Your task to perform on an android device: open app "YouTube Kids" (install if not already installed) Image 0: 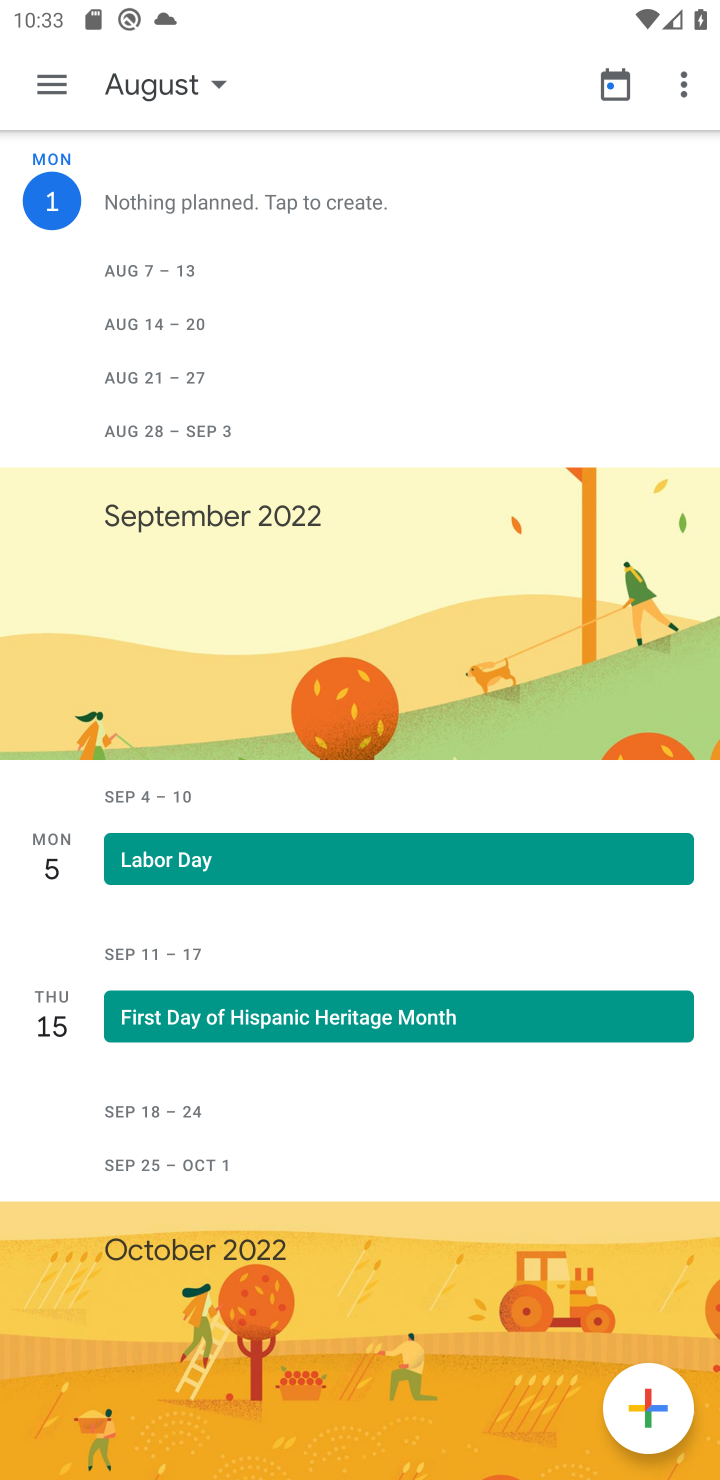
Step 0: press home button
Your task to perform on an android device: open app "YouTube Kids" (install if not already installed) Image 1: 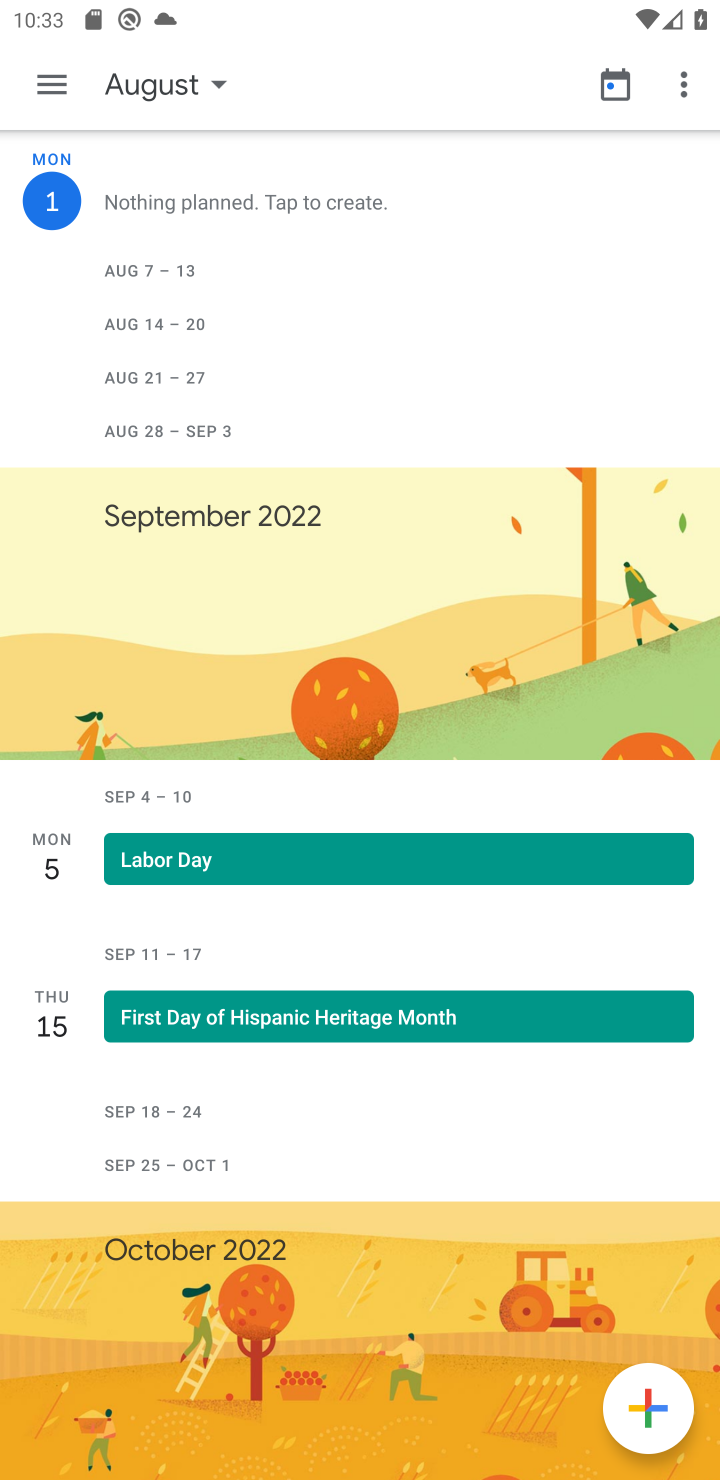
Step 1: press home button
Your task to perform on an android device: open app "YouTube Kids" (install if not already installed) Image 2: 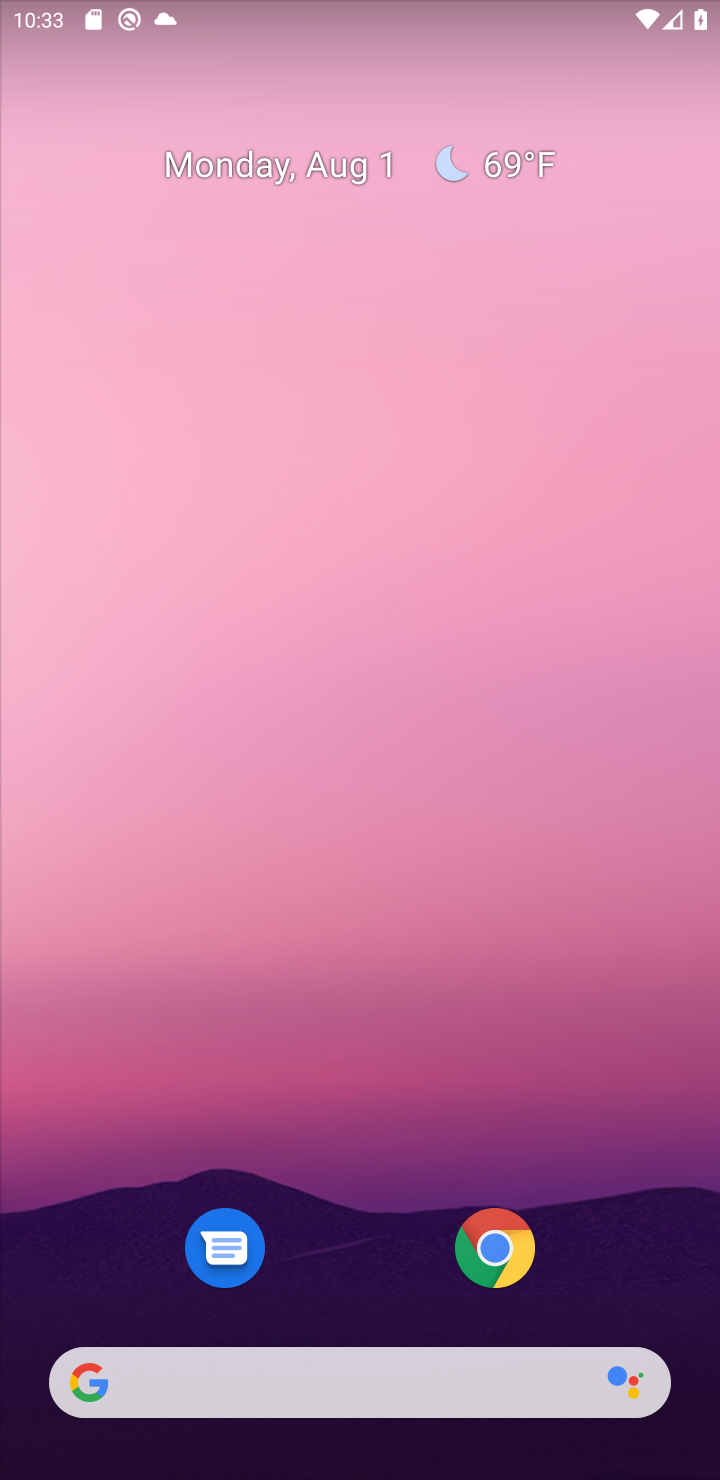
Step 2: press home button
Your task to perform on an android device: open app "YouTube Kids" (install if not already installed) Image 3: 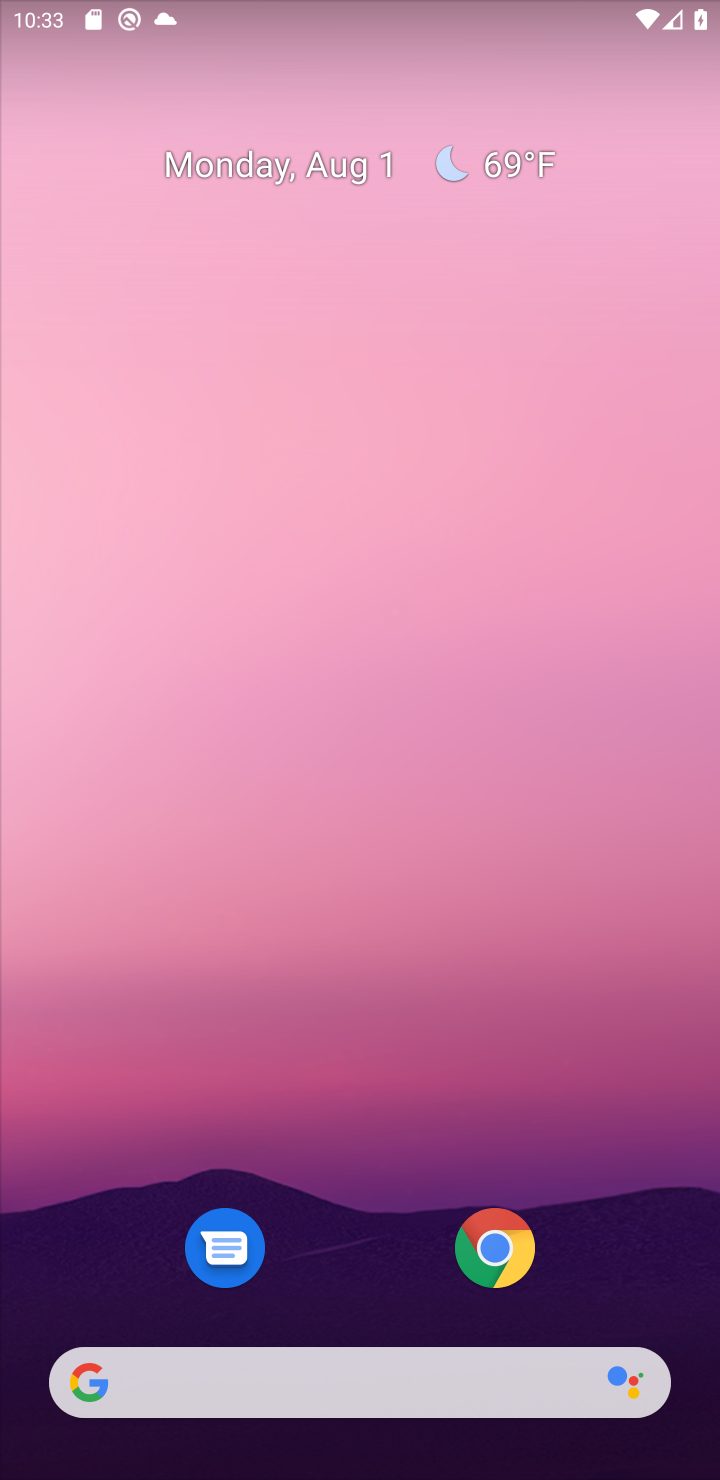
Step 3: drag from (360, 1076) to (334, 59)
Your task to perform on an android device: open app "YouTube Kids" (install if not already installed) Image 4: 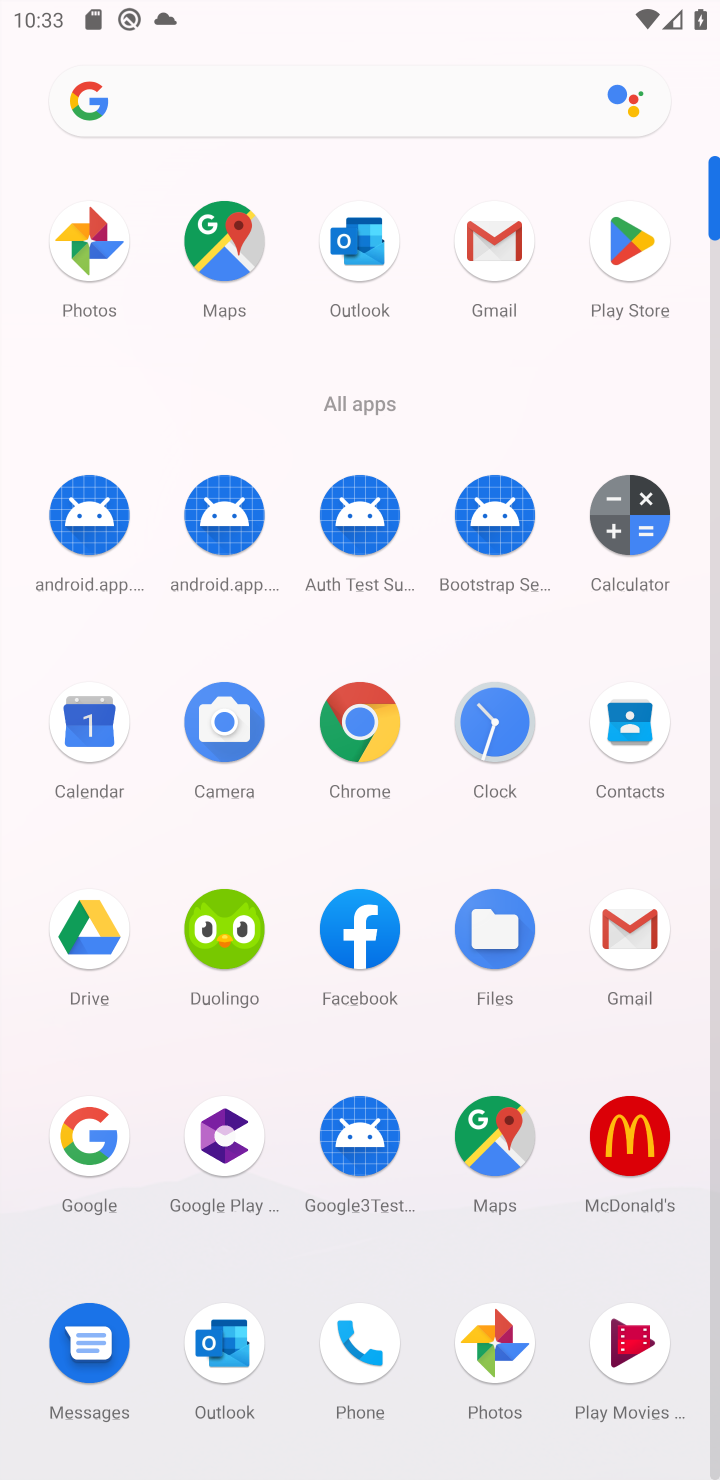
Step 4: drag from (425, 1285) to (426, 625)
Your task to perform on an android device: open app "YouTube Kids" (install if not already installed) Image 5: 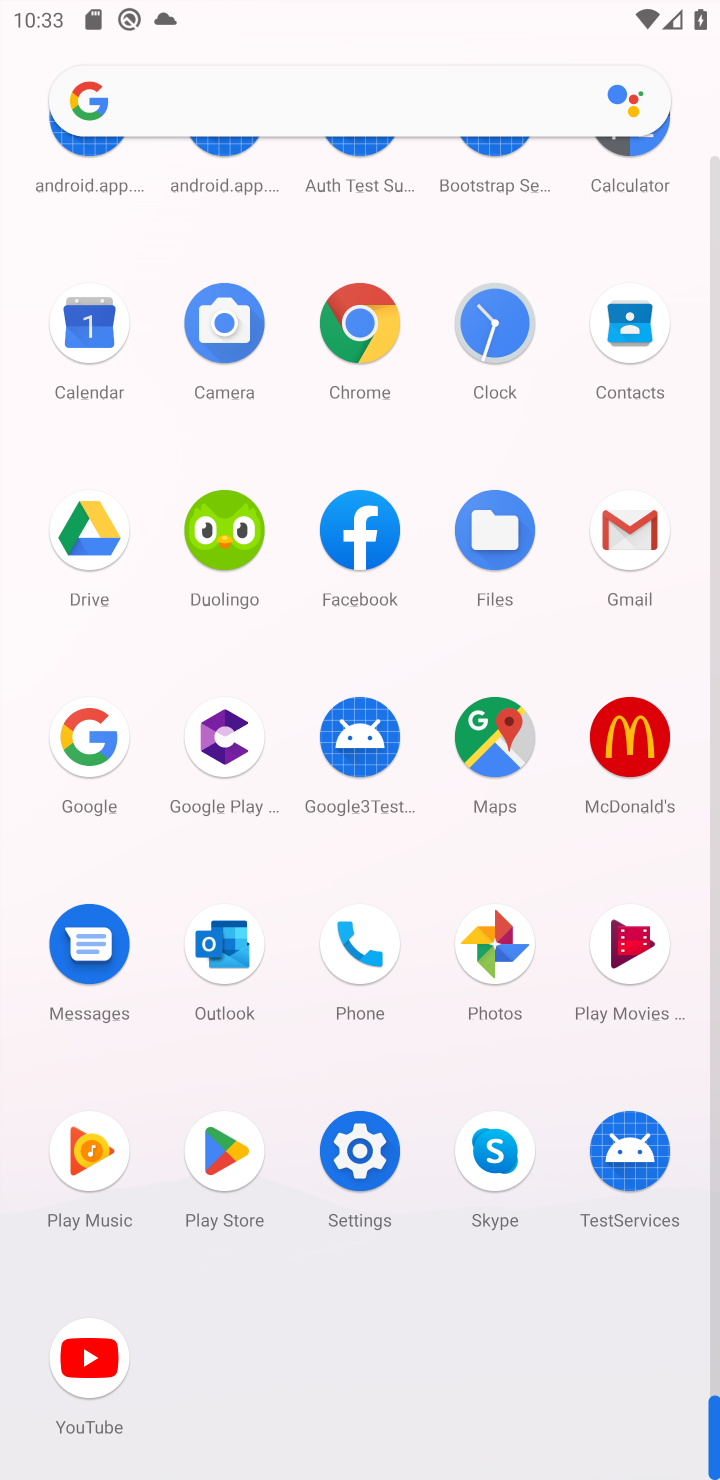
Step 5: click (223, 1157)
Your task to perform on an android device: open app "YouTube Kids" (install if not already installed) Image 6: 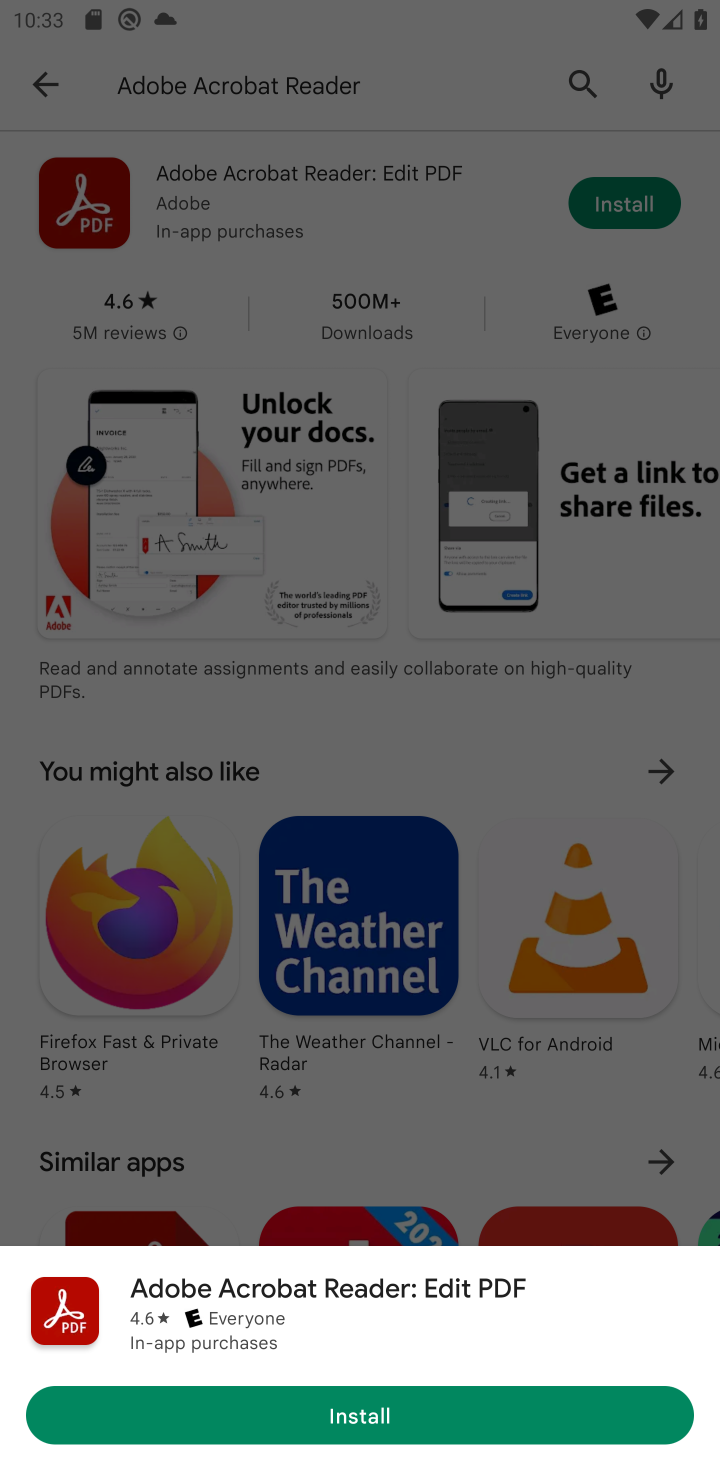
Step 6: click (392, 184)
Your task to perform on an android device: open app "YouTube Kids" (install if not already installed) Image 7: 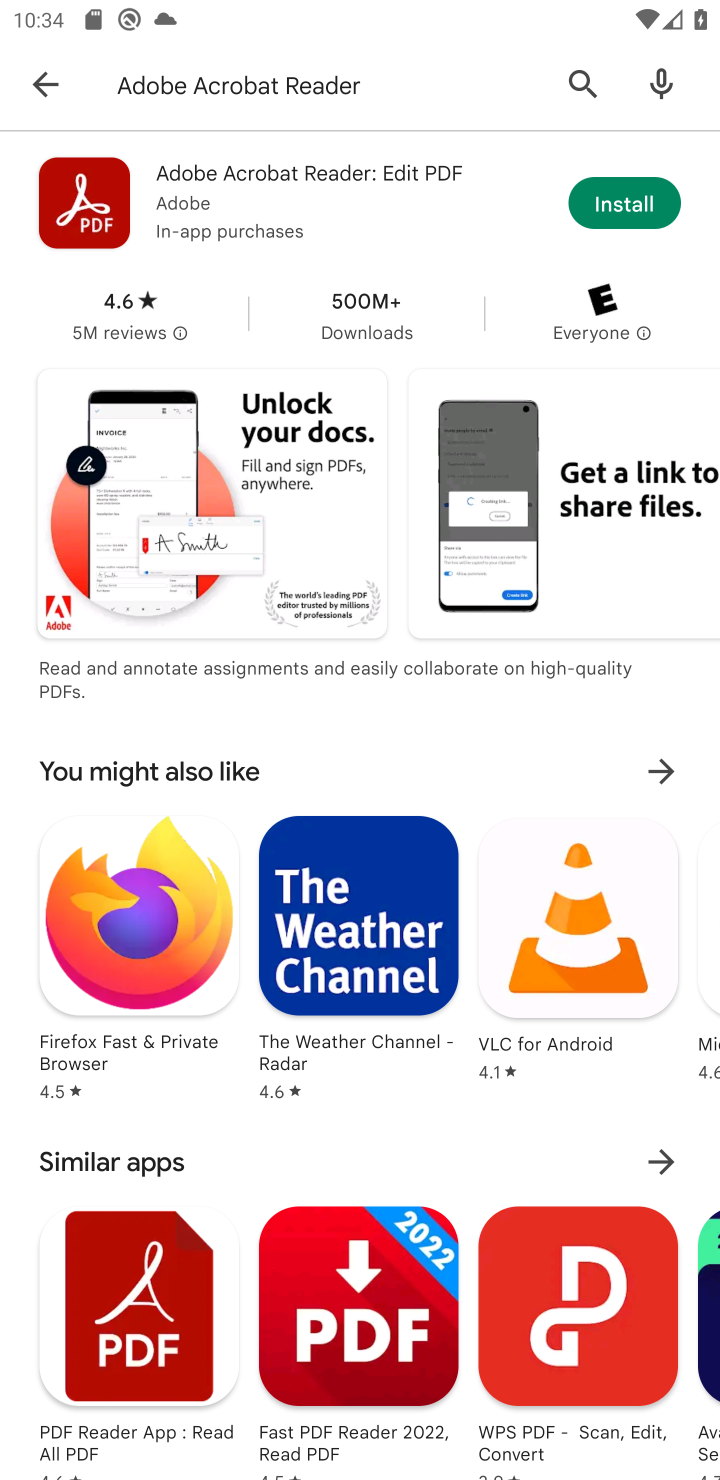
Step 7: click (396, 79)
Your task to perform on an android device: open app "YouTube Kids" (install if not already installed) Image 8: 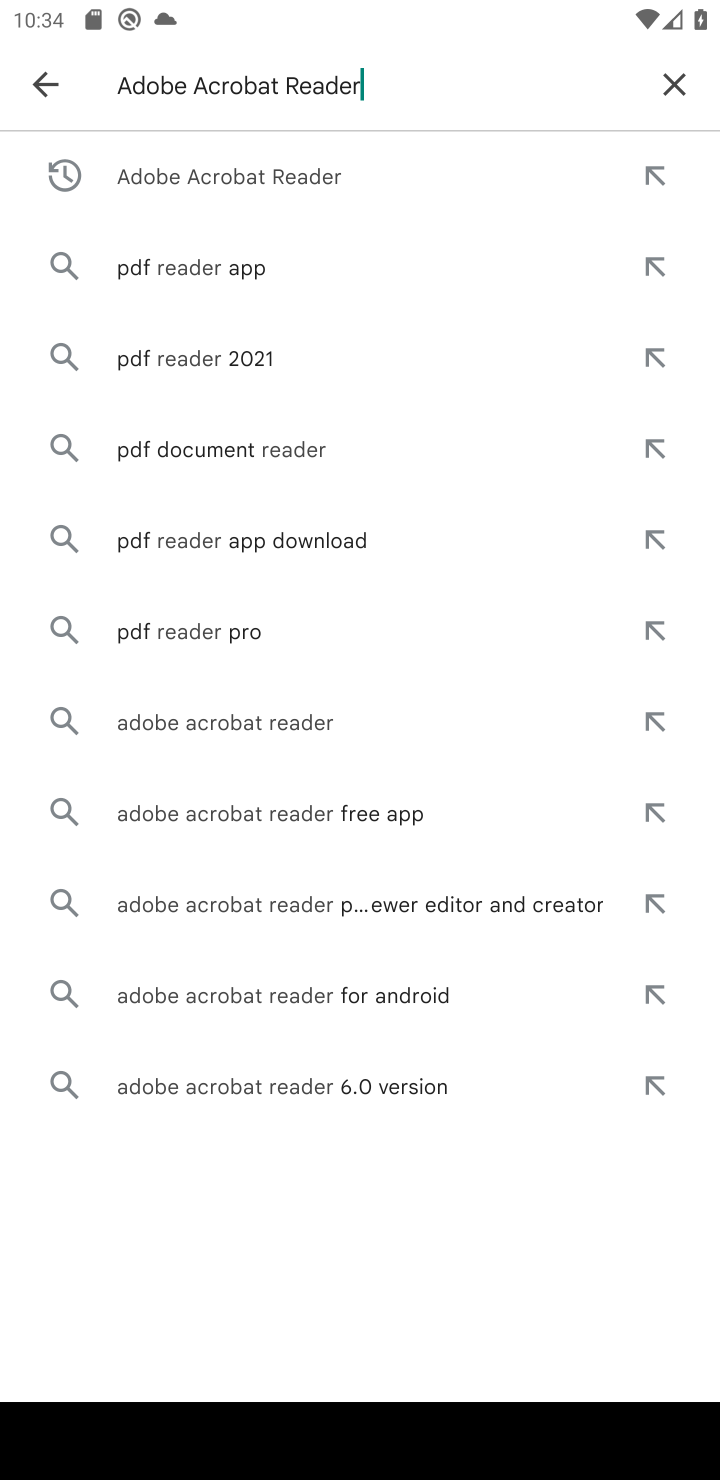
Step 8: click (689, 83)
Your task to perform on an android device: open app "YouTube Kids" (install if not already installed) Image 9: 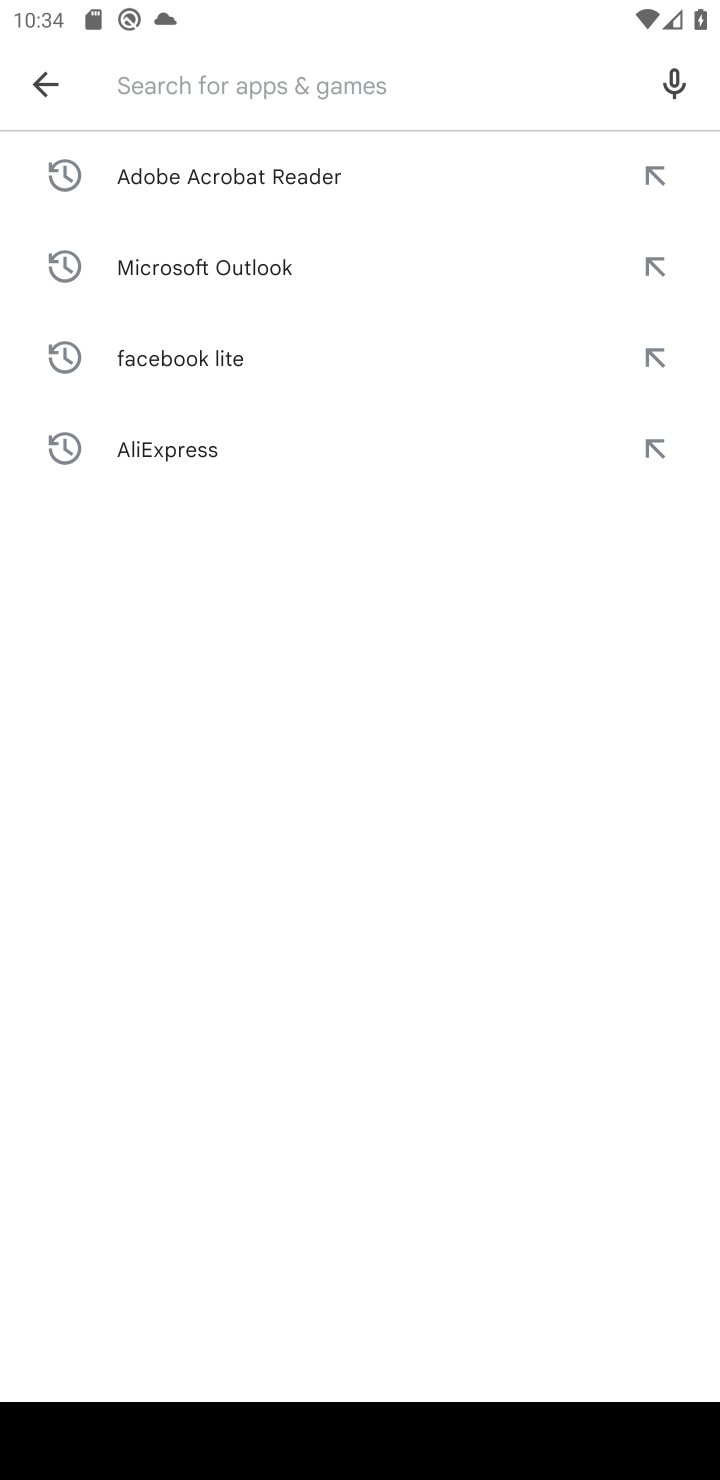
Step 9: type "Youtube Kids"
Your task to perform on an android device: open app "YouTube Kids" (install if not already installed) Image 10: 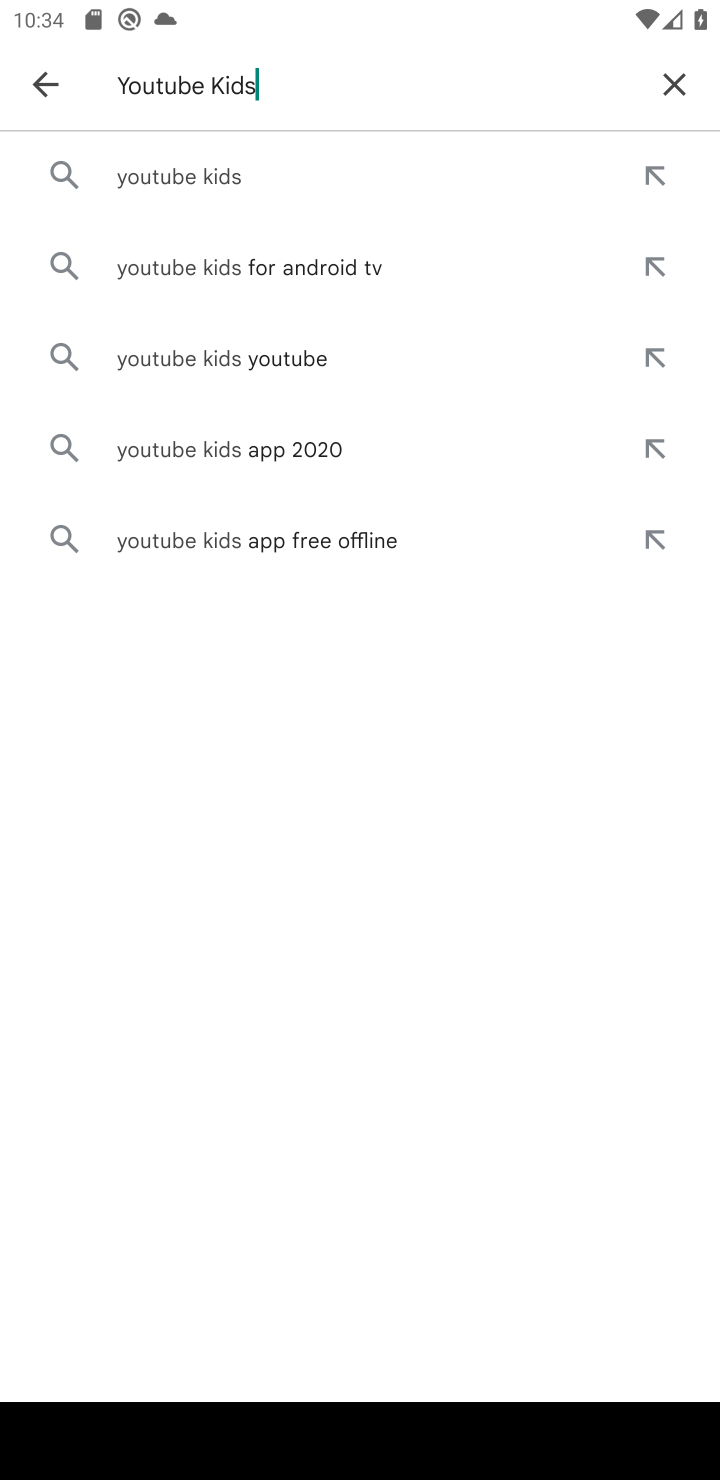
Step 10: press enter
Your task to perform on an android device: open app "YouTube Kids" (install if not already installed) Image 11: 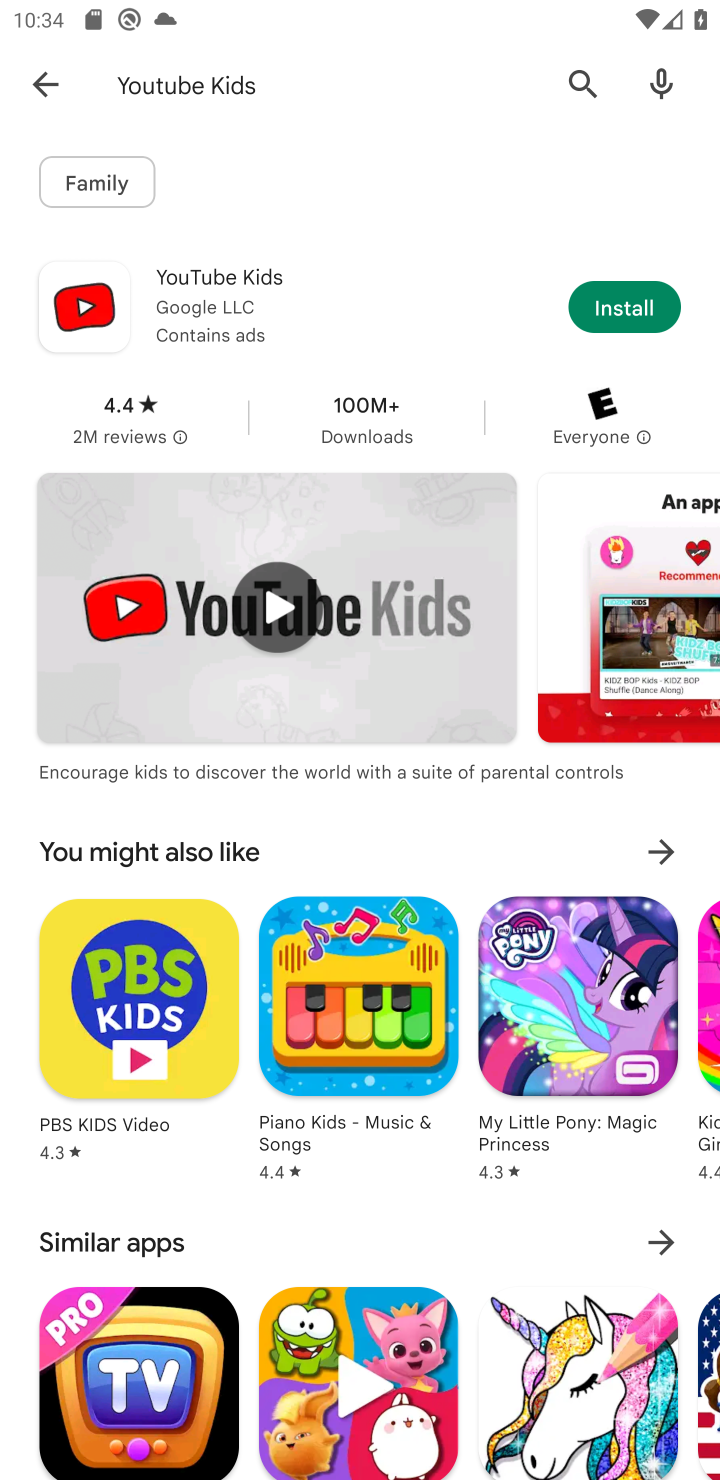
Step 11: click (574, 71)
Your task to perform on an android device: open app "YouTube Kids" (install if not already installed) Image 12: 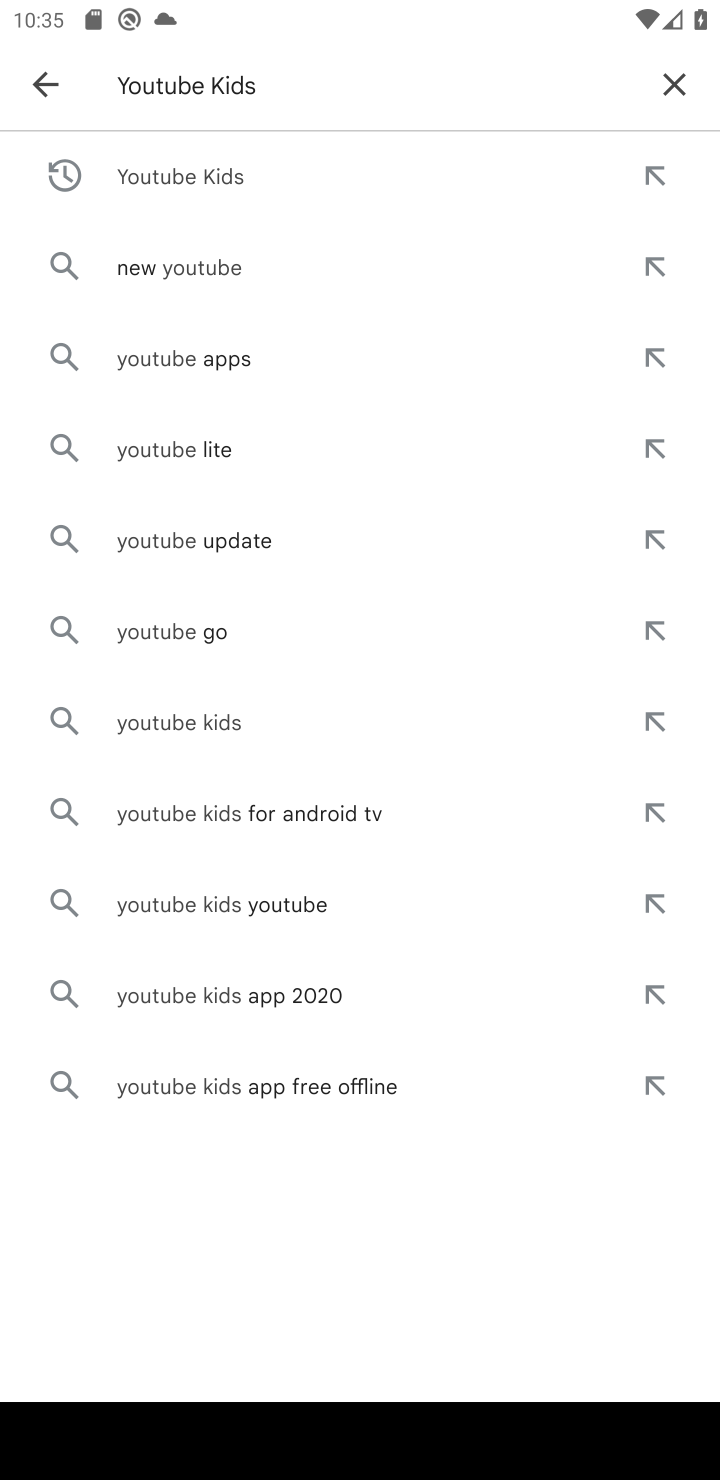
Step 12: click (668, 73)
Your task to perform on an android device: open app "YouTube Kids" (install if not already installed) Image 13: 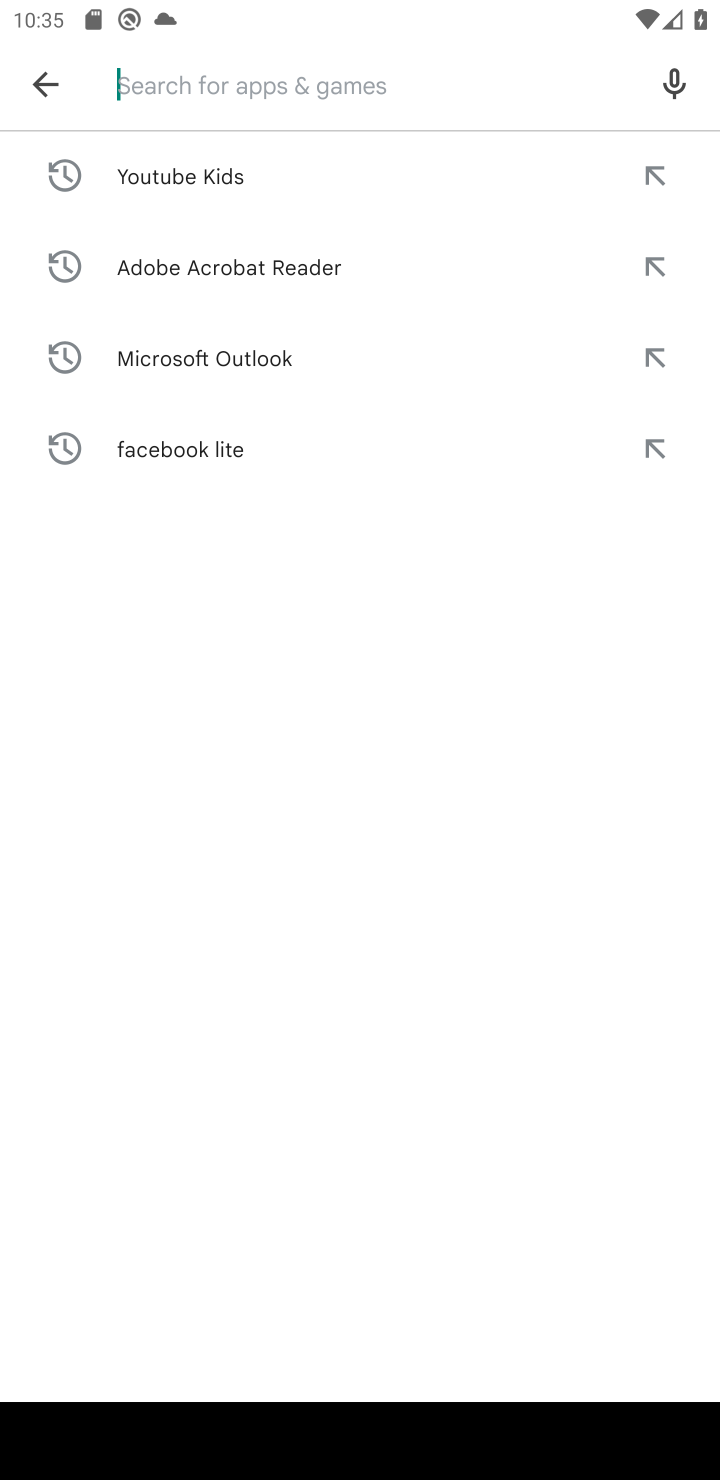
Step 13: type "Youtube"
Your task to perform on an android device: open app "YouTube Kids" (install if not already installed) Image 14: 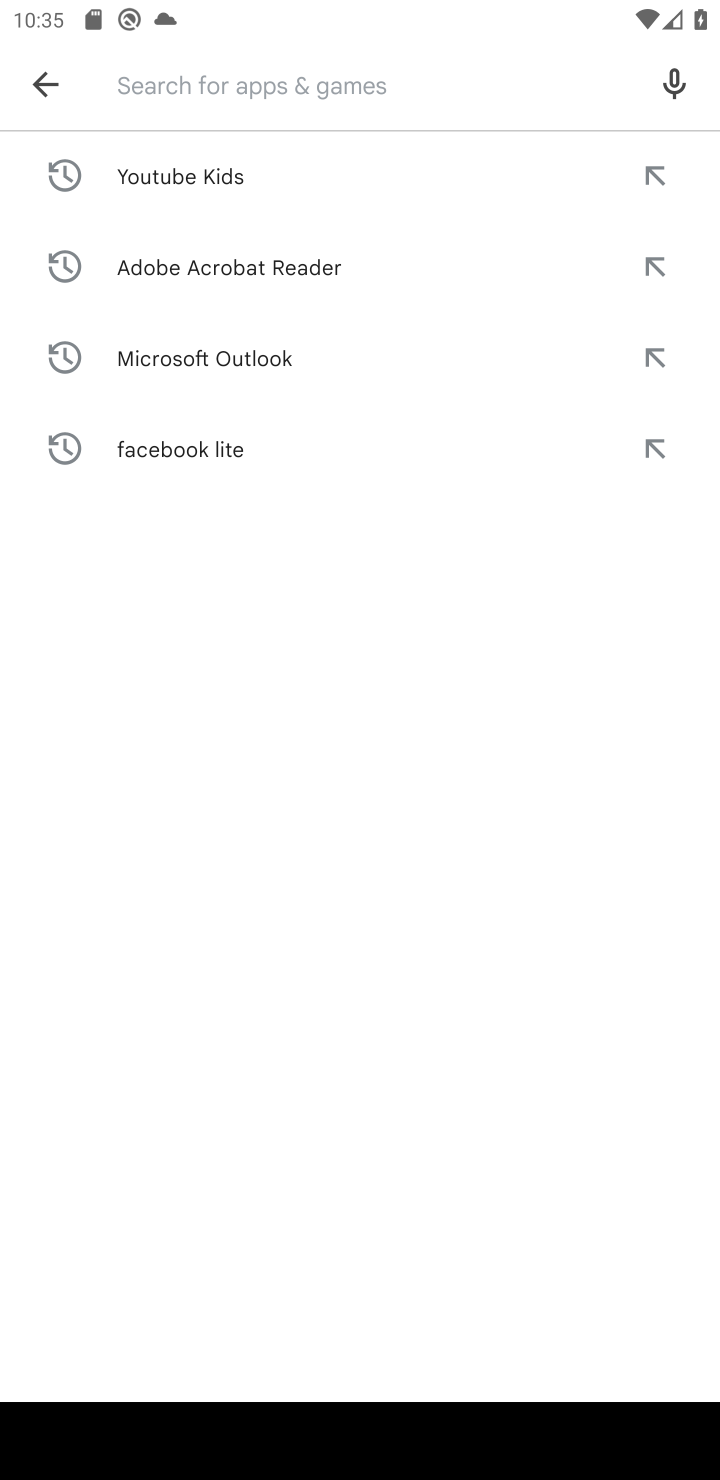
Step 14: click (184, 171)
Your task to perform on an android device: open app "YouTube Kids" (install if not already installed) Image 15: 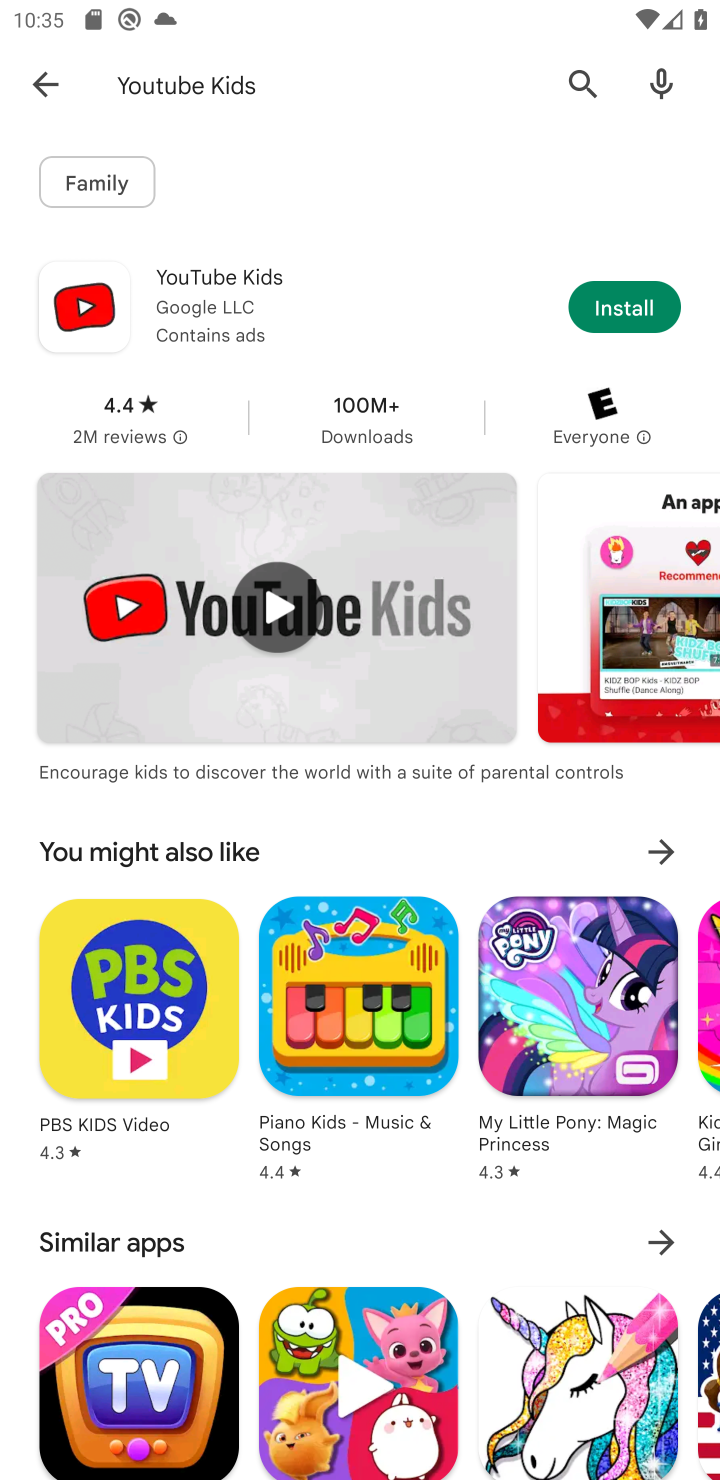
Step 15: click (637, 304)
Your task to perform on an android device: open app "YouTube Kids" (install if not already installed) Image 16: 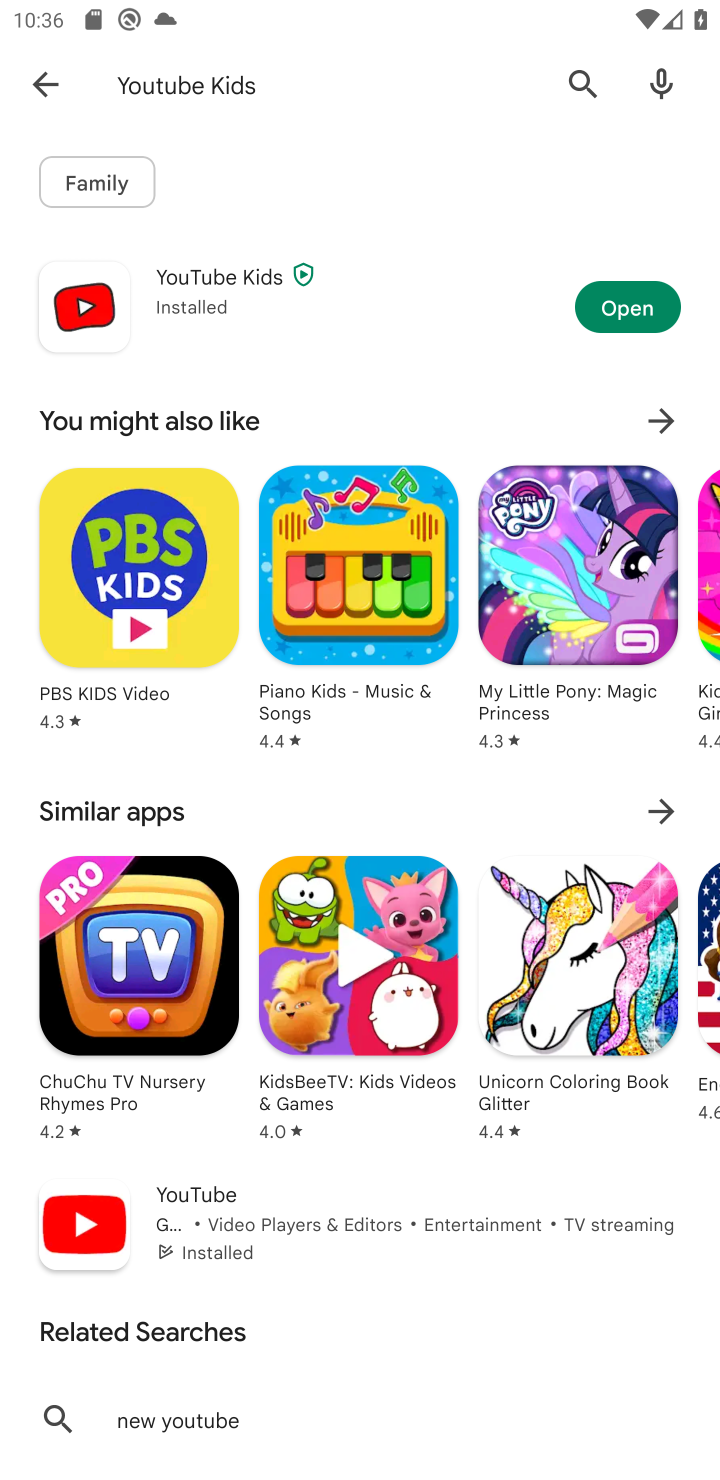
Step 16: click (642, 304)
Your task to perform on an android device: open app "YouTube Kids" (install if not already installed) Image 17: 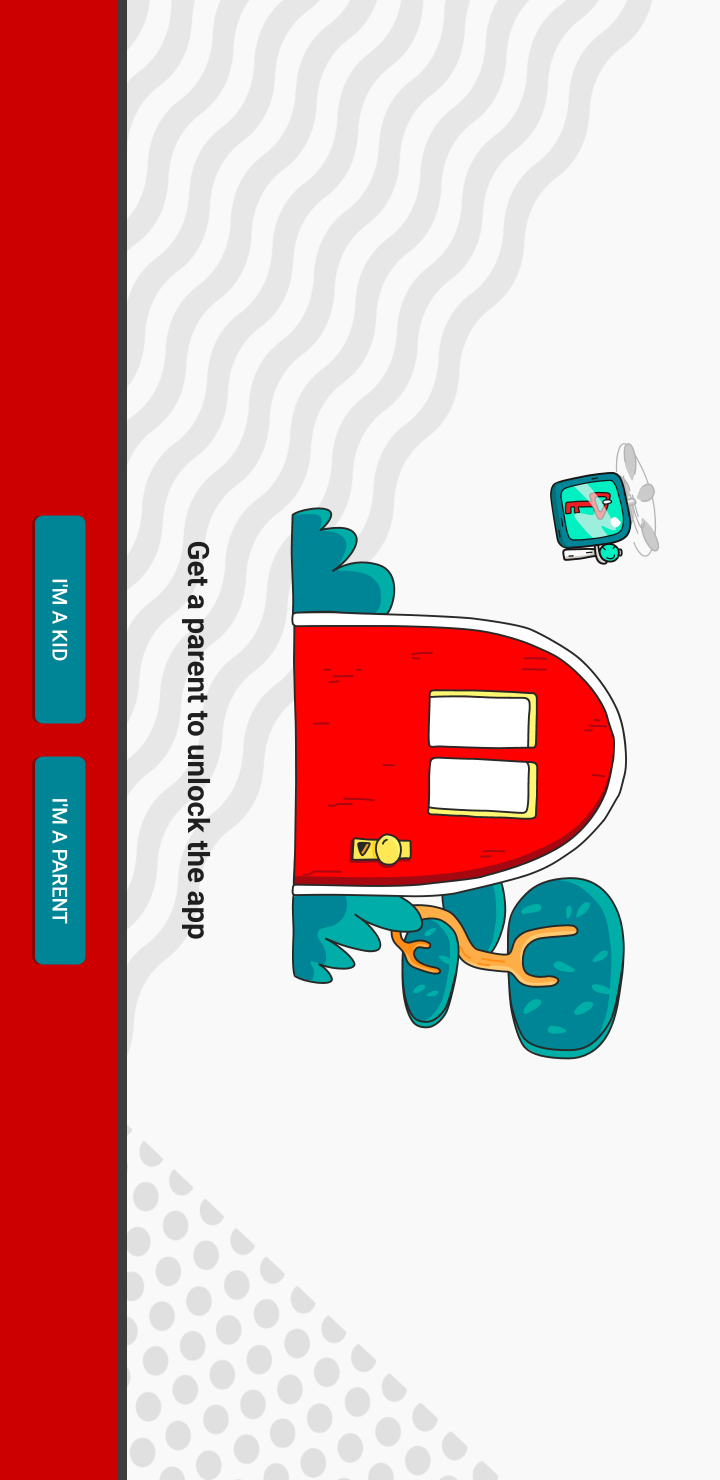
Step 17: task complete